Your task to perform on an android device: snooze an email in the gmail app Image 0: 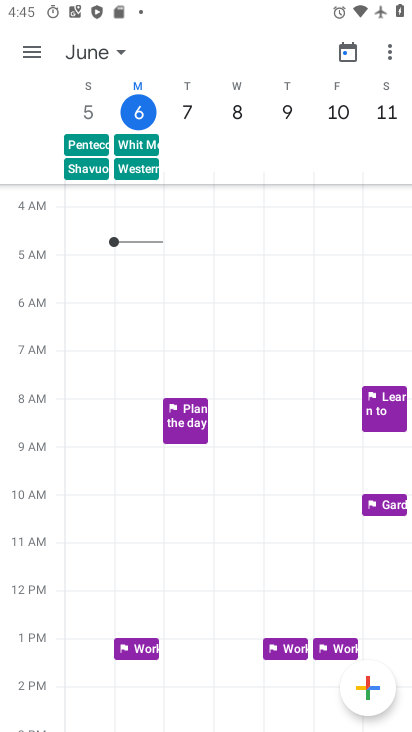
Step 0: press back button
Your task to perform on an android device: snooze an email in the gmail app Image 1: 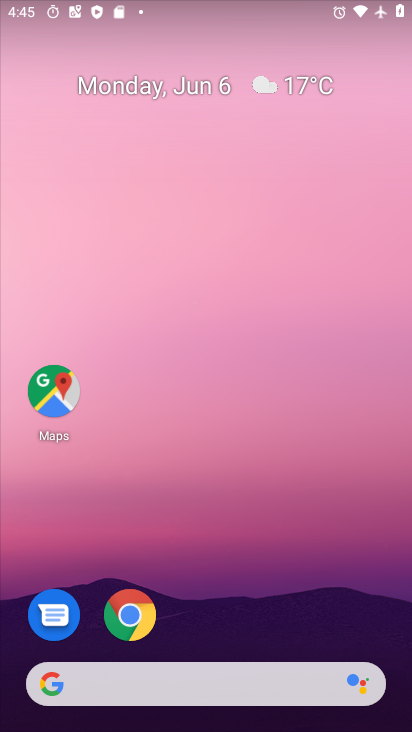
Step 1: drag from (278, 585) to (277, 33)
Your task to perform on an android device: snooze an email in the gmail app Image 2: 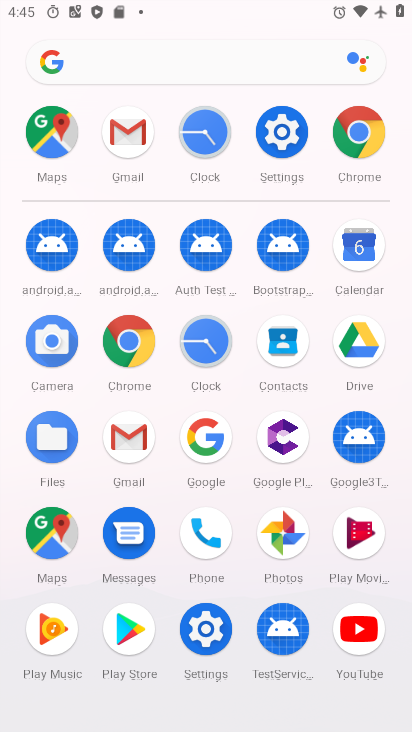
Step 2: click (126, 434)
Your task to perform on an android device: snooze an email in the gmail app Image 3: 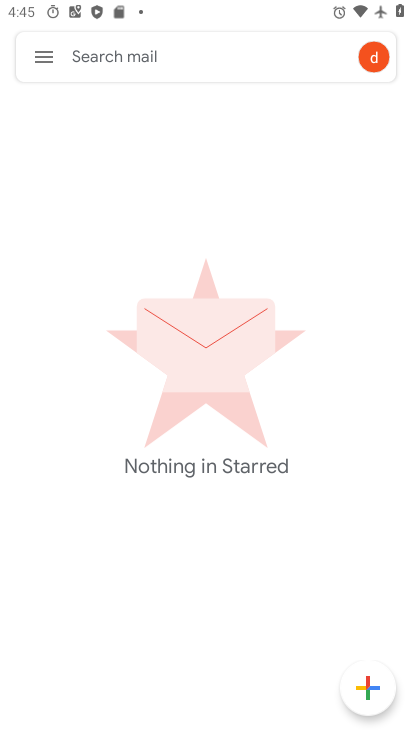
Step 3: click (45, 55)
Your task to perform on an android device: snooze an email in the gmail app Image 4: 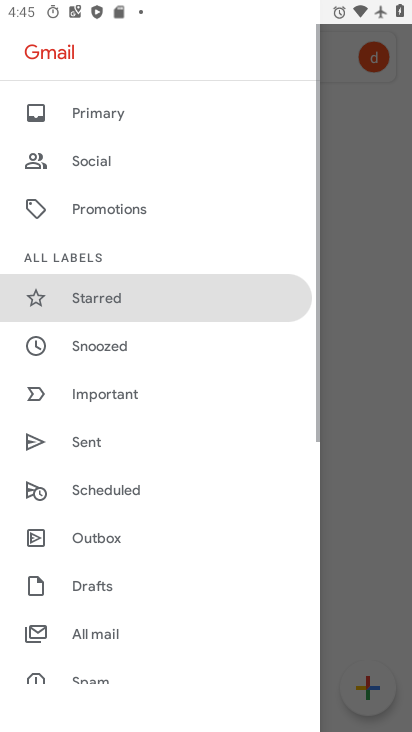
Step 4: drag from (180, 595) to (229, 162)
Your task to perform on an android device: snooze an email in the gmail app Image 5: 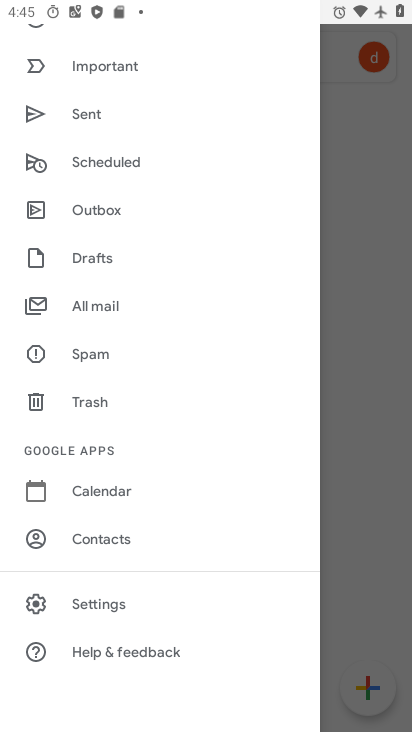
Step 5: drag from (230, 165) to (198, 645)
Your task to perform on an android device: snooze an email in the gmail app Image 6: 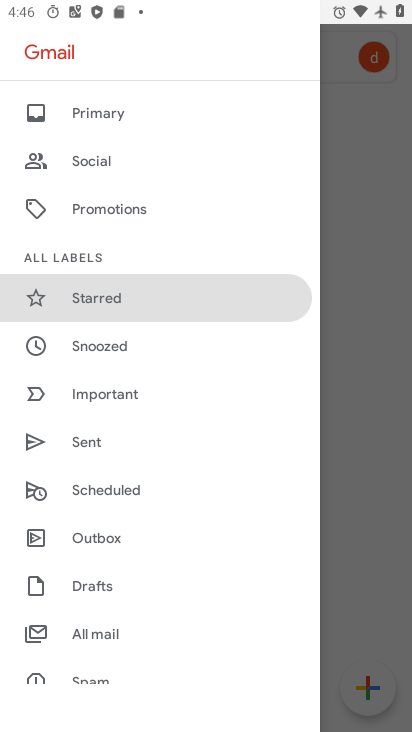
Step 6: click (106, 335)
Your task to perform on an android device: snooze an email in the gmail app Image 7: 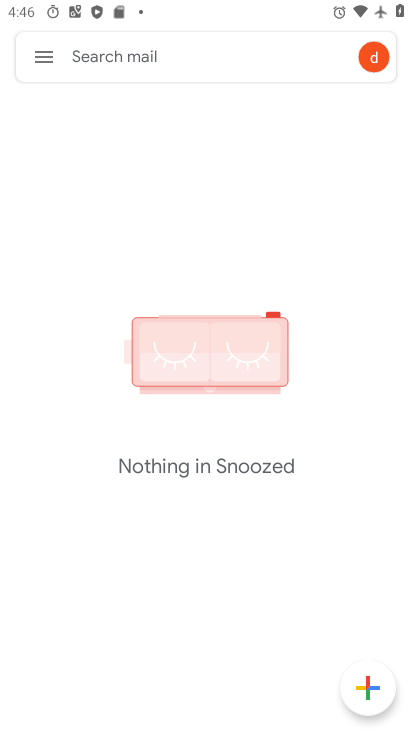
Step 7: task complete